Your task to perform on an android device: star an email in the gmail app Image 0: 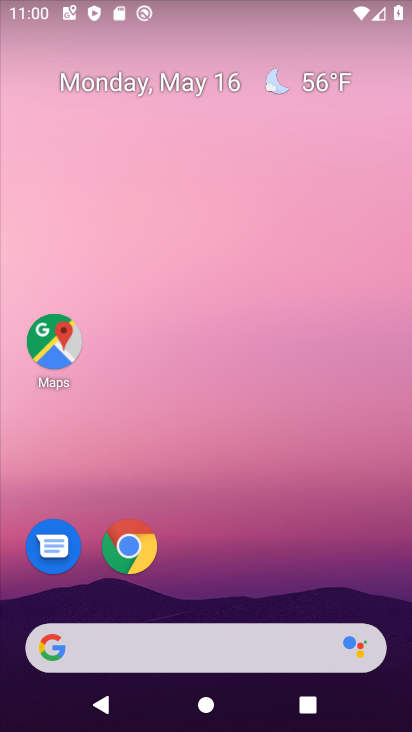
Step 0: drag from (343, 493) to (312, 32)
Your task to perform on an android device: star an email in the gmail app Image 1: 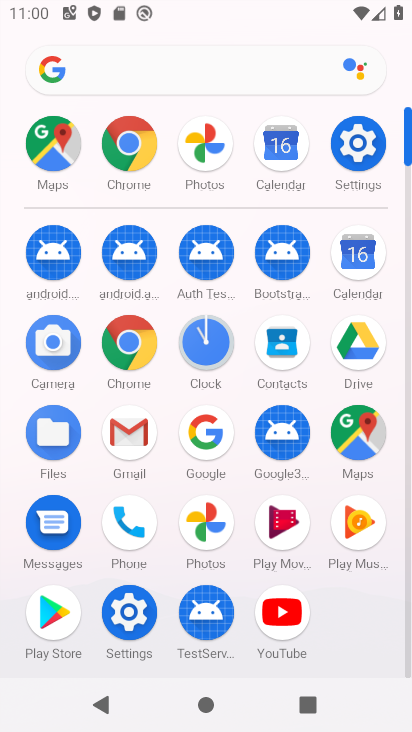
Step 1: click (125, 412)
Your task to perform on an android device: star an email in the gmail app Image 2: 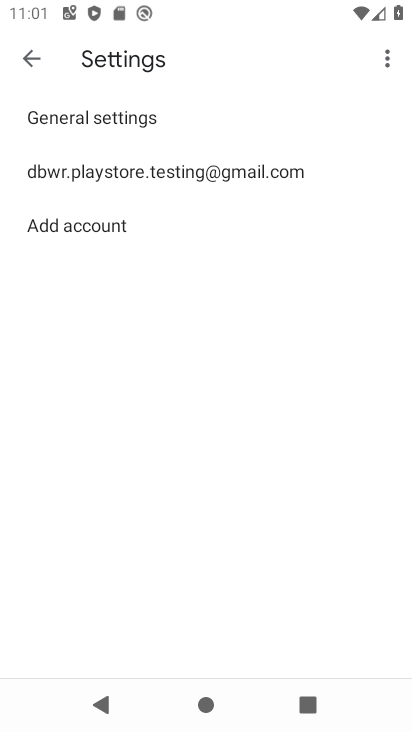
Step 2: click (52, 189)
Your task to perform on an android device: star an email in the gmail app Image 3: 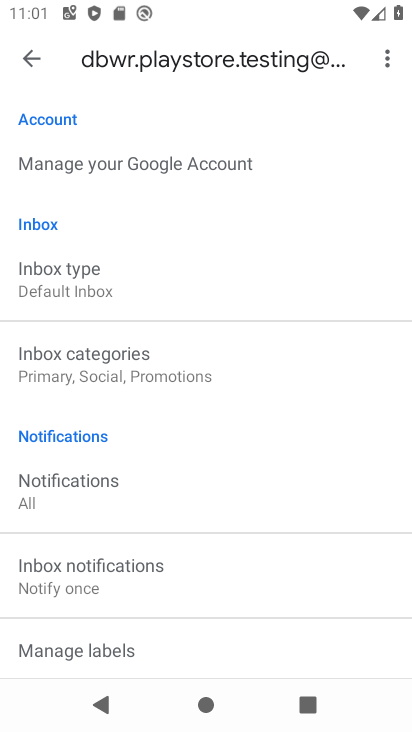
Step 3: click (34, 48)
Your task to perform on an android device: star an email in the gmail app Image 4: 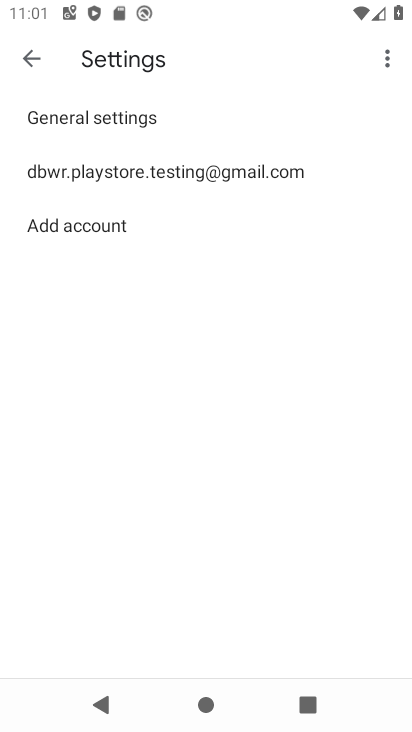
Step 4: click (33, 48)
Your task to perform on an android device: star an email in the gmail app Image 5: 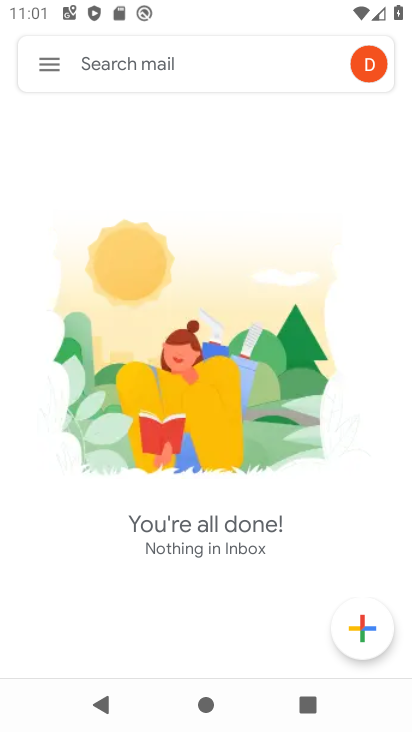
Step 5: task complete